Your task to perform on an android device: Where can I buy a nice beach umbrella? Image 0: 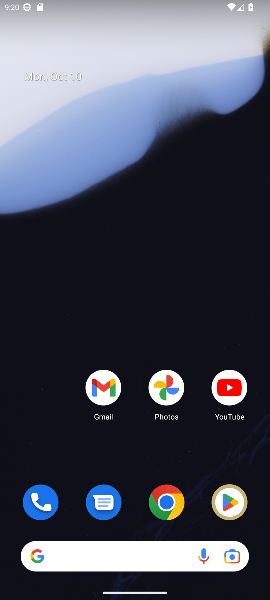
Step 0: click (167, 507)
Your task to perform on an android device: Where can I buy a nice beach umbrella? Image 1: 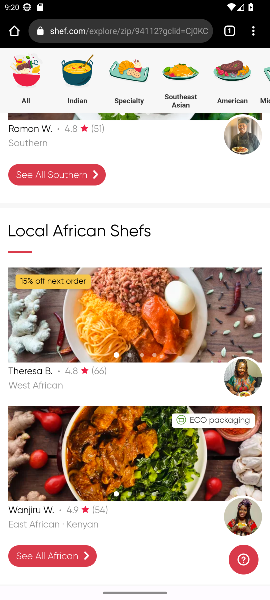
Step 1: click (131, 35)
Your task to perform on an android device: Where can I buy a nice beach umbrella? Image 2: 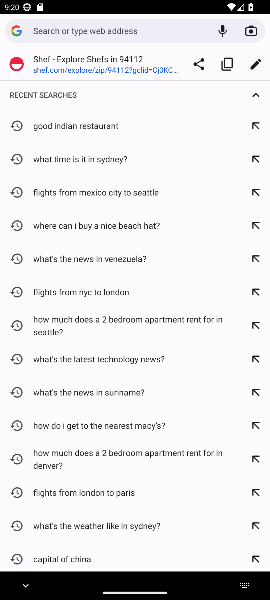
Step 2: type "Where can I buy a nice beach umbrella?"
Your task to perform on an android device: Where can I buy a nice beach umbrella? Image 3: 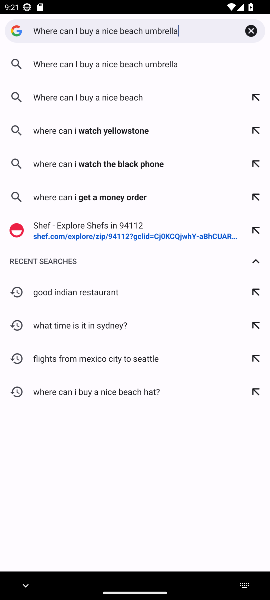
Step 3: type ""
Your task to perform on an android device: Where can I buy a nice beach umbrella? Image 4: 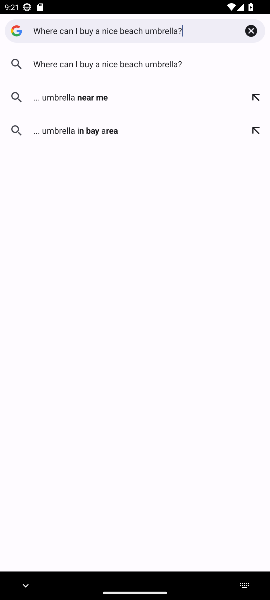
Step 4: press enter
Your task to perform on an android device: Where can I buy a nice beach umbrella? Image 5: 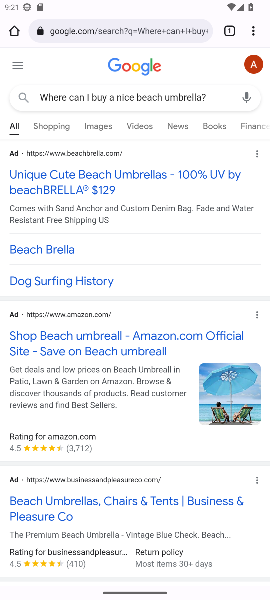
Step 5: click (104, 175)
Your task to perform on an android device: Where can I buy a nice beach umbrella? Image 6: 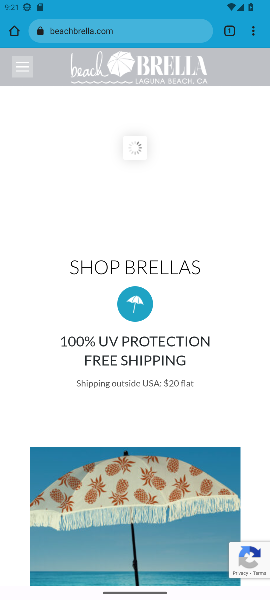
Step 6: drag from (148, 439) to (116, 172)
Your task to perform on an android device: Where can I buy a nice beach umbrella? Image 7: 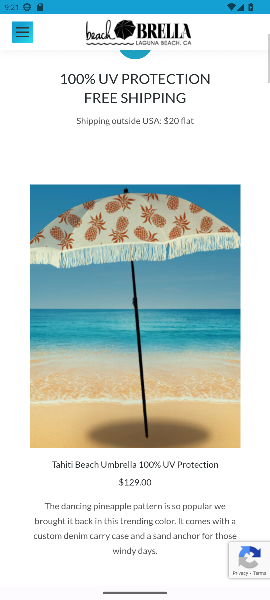
Step 7: drag from (156, 442) to (171, 226)
Your task to perform on an android device: Where can I buy a nice beach umbrella? Image 8: 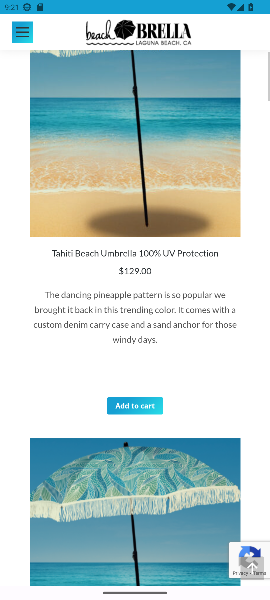
Step 8: drag from (174, 465) to (192, 209)
Your task to perform on an android device: Where can I buy a nice beach umbrella? Image 9: 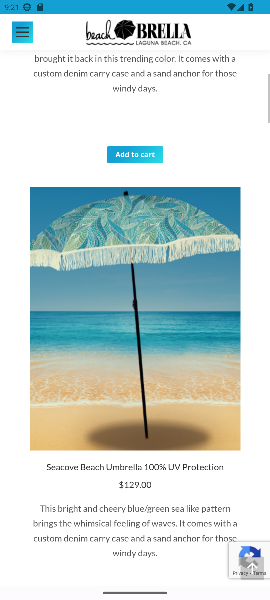
Step 9: drag from (185, 466) to (199, 214)
Your task to perform on an android device: Where can I buy a nice beach umbrella? Image 10: 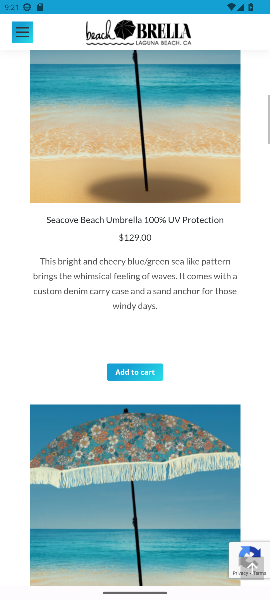
Step 10: drag from (194, 479) to (209, 252)
Your task to perform on an android device: Where can I buy a nice beach umbrella? Image 11: 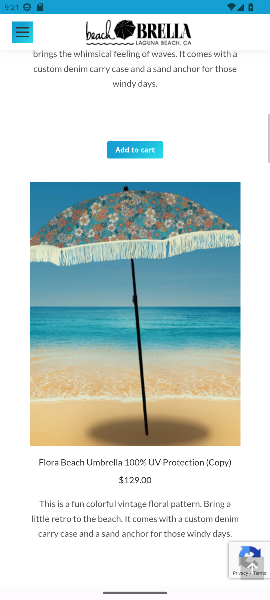
Step 11: drag from (193, 483) to (190, 165)
Your task to perform on an android device: Where can I buy a nice beach umbrella? Image 12: 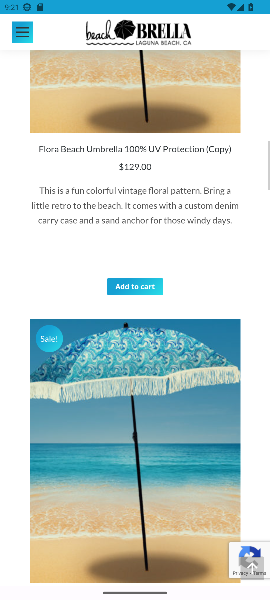
Step 12: drag from (210, 496) to (215, 143)
Your task to perform on an android device: Where can I buy a nice beach umbrella? Image 13: 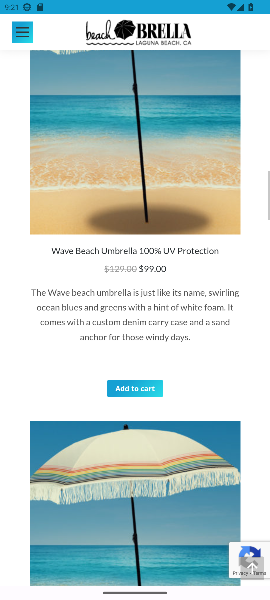
Step 13: drag from (175, 495) to (160, 138)
Your task to perform on an android device: Where can I buy a nice beach umbrella? Image 14: 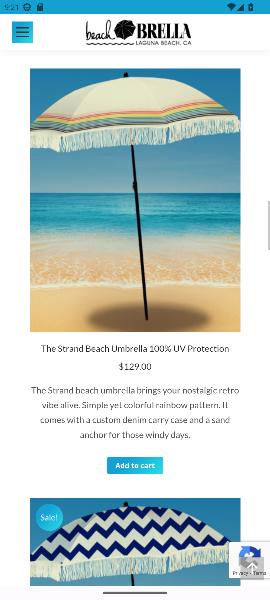
Step 14: drag from (151, 478) to (160, 173)
Your task to perform on an android device: Where can I buy a nice beach umbrella? Image 15: 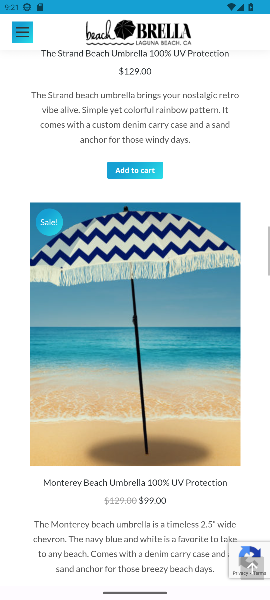
Step 15: drag from (178, 485) to (180, 188)
Your task to perform on an android device: Where can I buy a nice beach umbrella? Image 16: 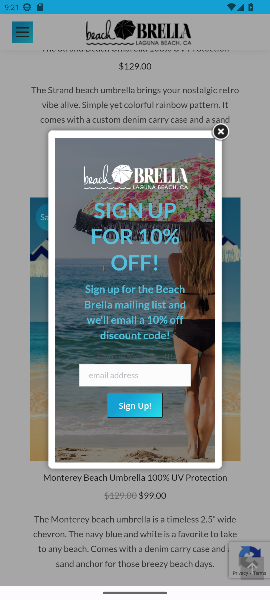
Step 16: drag from (174, 447) to (173, 207)
Your task to perform on an android device: Where can I buy a nice beach umbrella? Image 17: 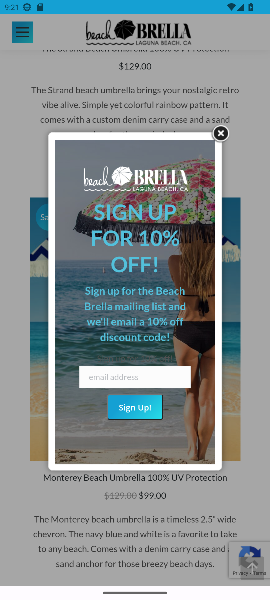
Step 17: click (218, 134)
Your task to perform on an android device: Where can I buy a nice beach umbrella? Image 18: 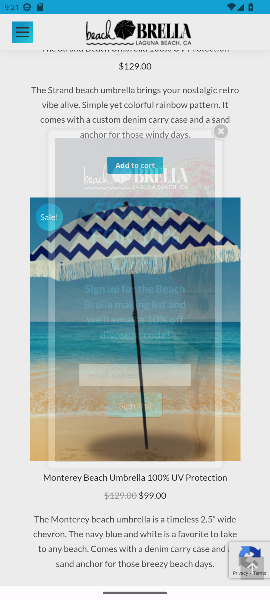
Step 18: drag from (166, 449) to (170, 136)
Your task to perform on an android device: Where can I buy a nice beach umbrella? Image 19: 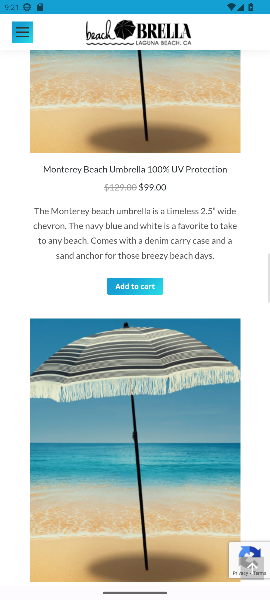
Step 19: drag from (169, 448) to (183, 157)
Your task to perform on an android device: Where can I buy a nice beach umbrella? Image 20: 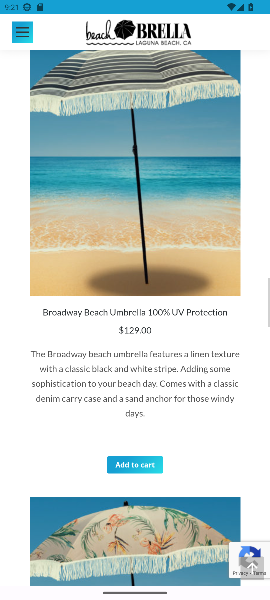
Step 20: drag from (176, 473) to (183, 170)
Your task to perform on an android device: Where can I buy a nice beach umbrella? Image 21: 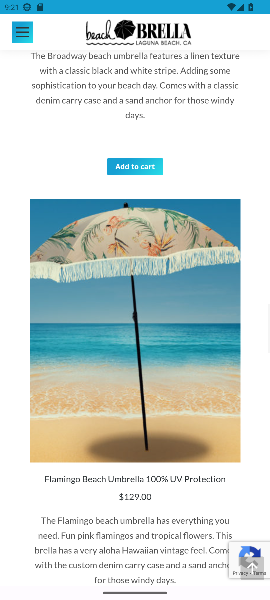
Step 21: drag from (194, 458) to (208, 144)
Your task to perform on an android device: Where can I buy a nice beach umbrella? Image 22: 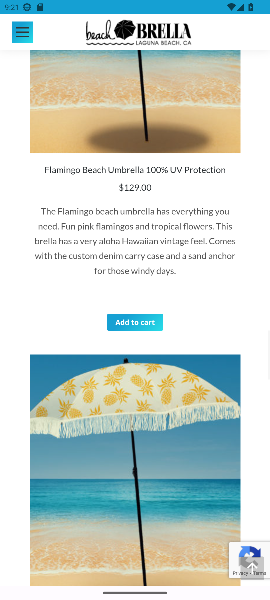
Step 22: drag from (193, 477) to (217, 151)
Your task to perform on an android device: Where can I buy a nice beach umbrella? Image 23: 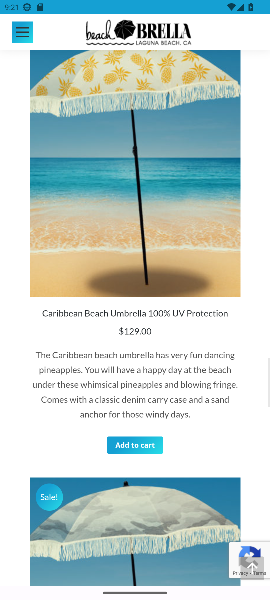
Step 23: drag from (200, 492) to (222, 169)
Your task to perform on an android device: Where can I buy a nice beach umbrella? Image 24: 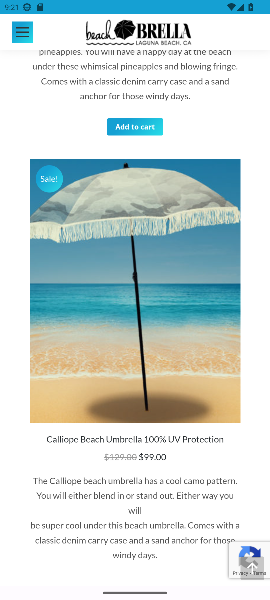
Step 24: drag from (197, 506) to (205, 176)
Your task to perform on an android device: Where can I buy a nice beach umbrella? Image 25: 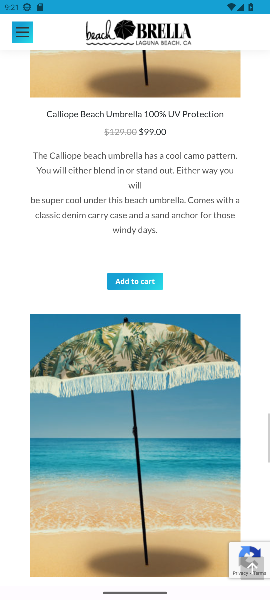
Step 25: drag from (198, 521) to (183, 202)
Your task to perform on an android device: Where can I buy a nice beach umbrella? Image 26: 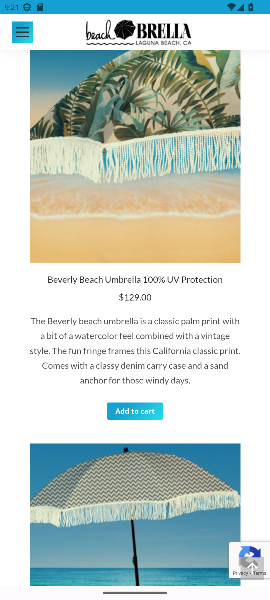
Step 26: drag from (151, 552) to (146, 153)
Your task to perform on an android device: Where can I buy a nice beach umbrella? Image 27: 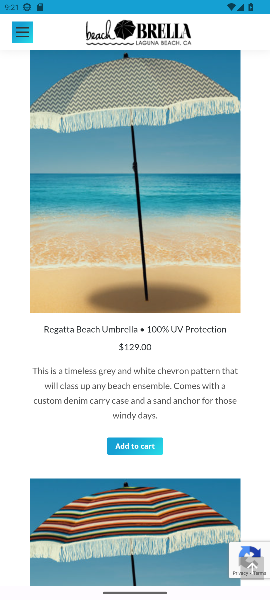
Step 27: drag from (144, 546) to (161, 189)
Your task to perform on an android device: Where can I buy a nice beach umbrella? Image 28: 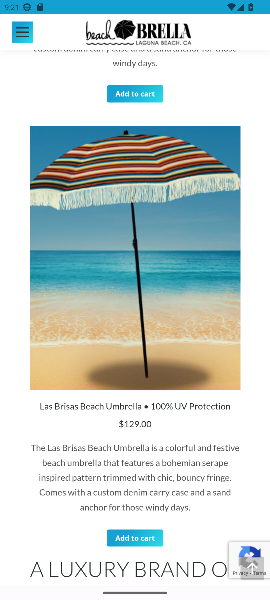
Step 28: drag from (174, 405) to (215, 187)
Your task to perform on an android device: Where can I buy a nice beach umbrella? Image 29: 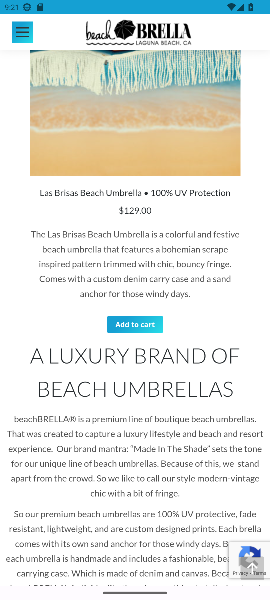
Step 29: drag from (192, 558) to (175, 191)
Your task to perform on an android device: Where can I buy a nice beach umbrella? Image 30: 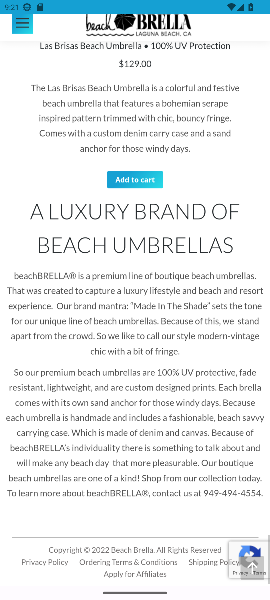
Step 30: drag from (133, 429) to (147, 189)
Your task to perform on an android device: Where can I buy a nice beach umbrella? Image 31: 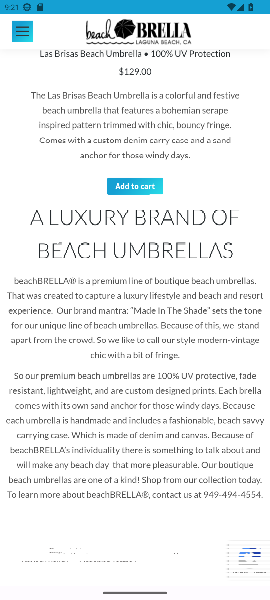
Step 31: drag from (117, 386) to (143, 220)
Your task to perform on an android device: Where can I buy a nice beach umbrella? Image 32: 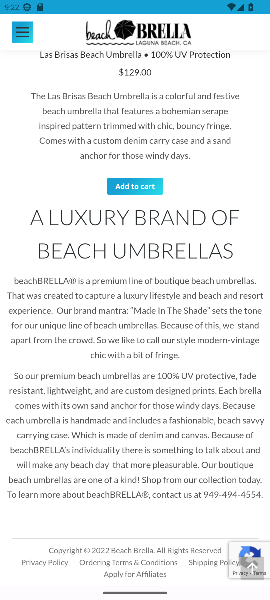
Step 32: drag from (140, 465) to (153, 288)
Your task to perform on an android device: Where can I buy a nice beach umbrella? Image 33: 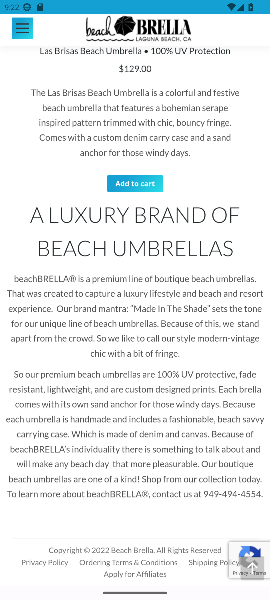
Step 33: press back button
Your task to perform on an android device: Where can I buy a nice beach umbrella? Image 34: 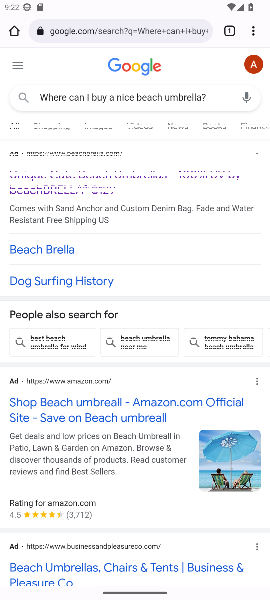
Step 34: click (119, 414)
Your task to perform on an android device: Where can I buy a nice beach umbrella? Image 35: 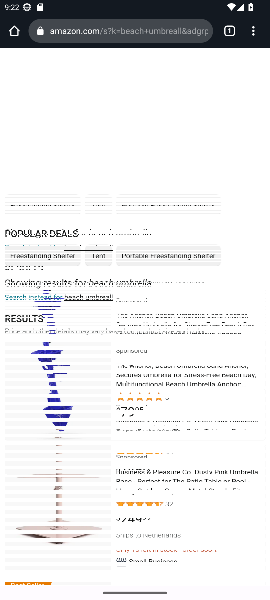
Step 35: drag from (118, 473) to (115, 192)
Your task to perform on an android device: Where can I buy a nice beach umbrella? Image 36: 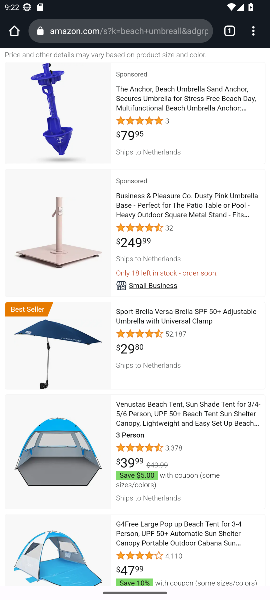
Step 36: drag from (118, 445) to (130, 140)
Your task to perform on an android device: Where can I buy a nice beach umbrella? Image 37: 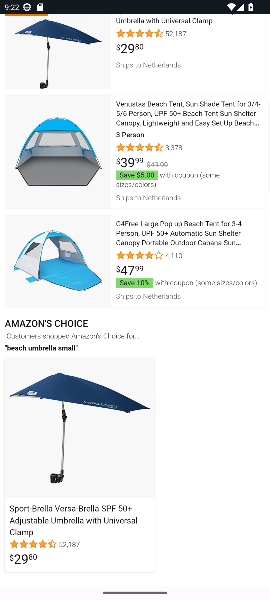
Step 37: drag from (127, 353) to (145, 166)
Your task to perform on an android device: Where can I buy a nice beach umbrella? Image 38: 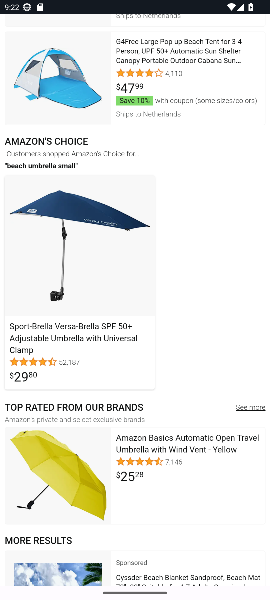
Step 38: drag from (132, 399) to (177, 199)
Your task to perform on an android device: Where can I buy a nice beach umbrella? Image 39: 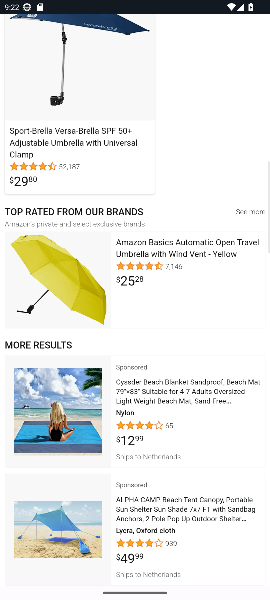
Step 39: drag from (130, 364) to (144, 229)
Your task to perform on an android device: Where can I buy a nice beach umbrella? Image 40: 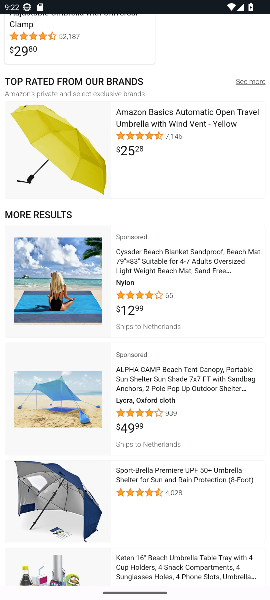
Step 40: drag from (93, 493) to (113, 154)
Your task to perform on an android device: Where can I buy a nice beach umbrella? Image 41: 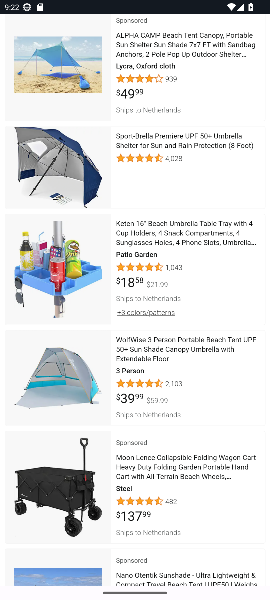
Step 41: drag from (101, 444) to (147, 148)
Your task to perform on an android device: Where can I buy a nice beach umbrella? Image 42: 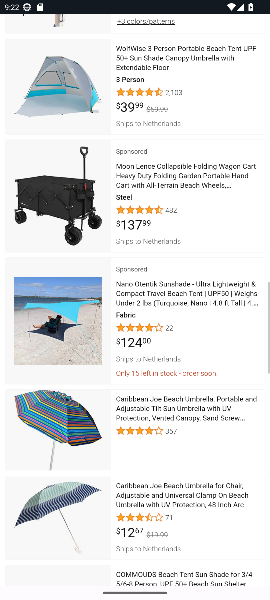
Step 42: drag from (130, 461) to (170, 136)
Your task to perform on an android device: Where can I buy a nice beach umbrella? Image 43: 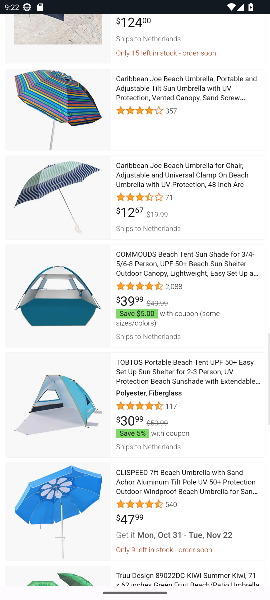
Step 43: drag from (153, 449) to (177, 193)
Your task to perform on an android device: Where can I buy a nice beach umbrella? Image 44: 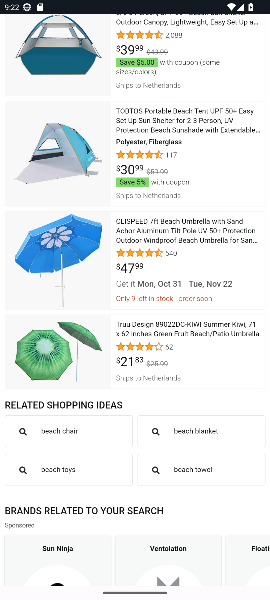
Step 44: drag from (178, 475) to (210, 148)
Your task to perform on an android device: Where can I buy a nice beach umbrella? Image 45: 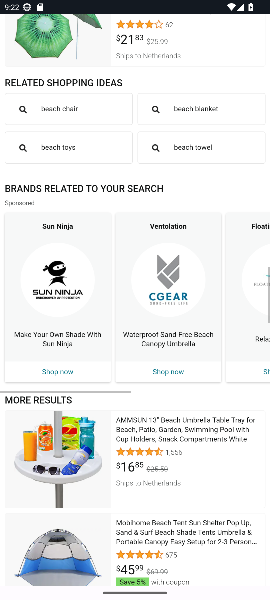
Step 45: drag from (160, 356) to (198, 116)
Your task to perform on an android device: Where can I buy a nice beach umbrella? Image 46: 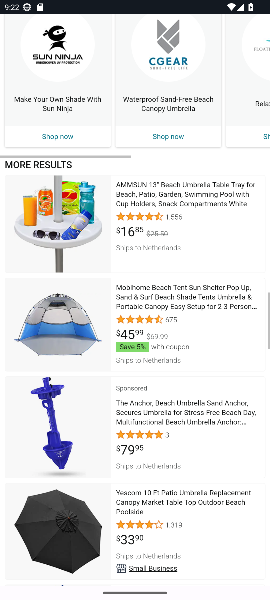
Step 46: drag from (179, 405) to (188, 103)
Your task to perform on an android device: Where can I buy a nice beach umbrella? Image 47: 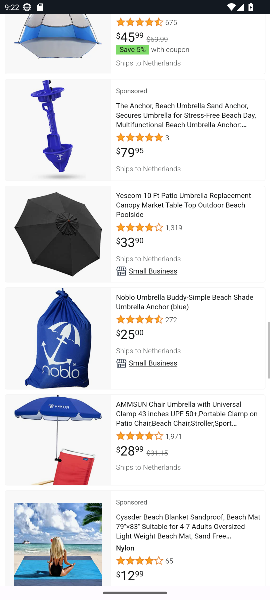
Step 47: drag from (167, 462) to (184, 58)
Your task to perform on an android device: Where can I buy a nice beach umbrella? Image 48: 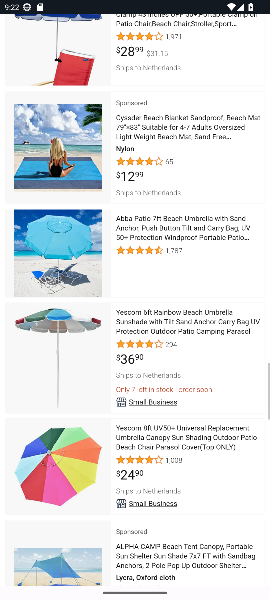
Step 48: drag from (174, 200) to (180, 122)
Your task to perform on an android device: Where can I buy a nice beach umbrella? Image 49: 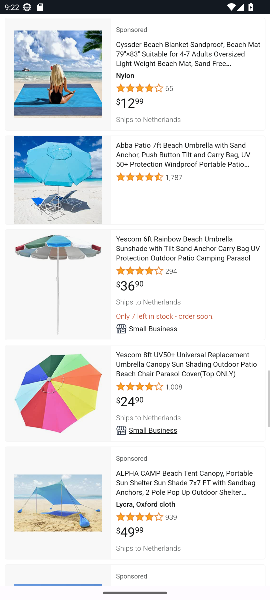
Step 49: drag from (184, 464) to (179, 129)
Your task to perform on an android device: Where can I buy a nice beach umbrella? Image 50: 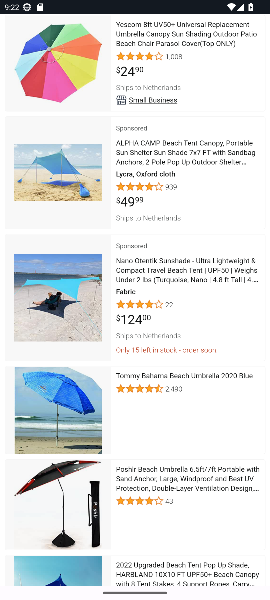
Step 50: press back button
Your task to perform on an android device: Where can I buy a nice beach umbrella? Image 51: 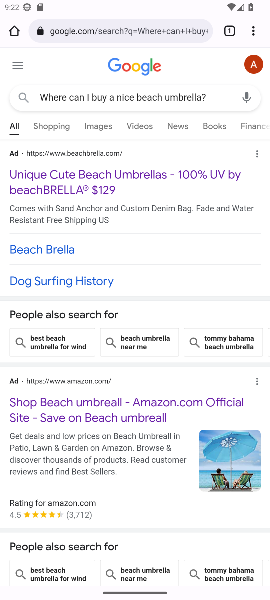
Step 51: drag from (134, 502) to (132, 182)
Your task to perform on an android device: Where can I buy a nice beach umbrella? Image 52: 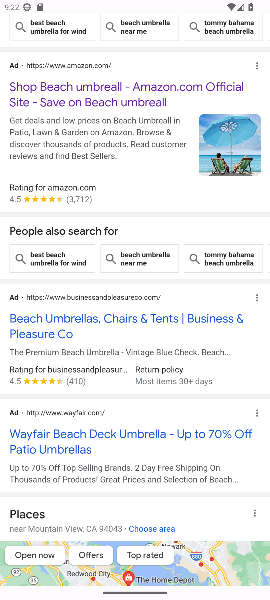
Step 52: click (134, 317)
Your task to perform on an android device: Where can I buy a nice beach umbrella? Image 53: 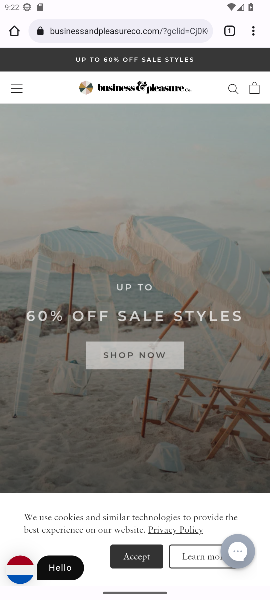
Step 53: drag from (136, 410) to (176, 101)
Your task to perform on an android device: Where can I buy a nice beach umbrella? Image 54: 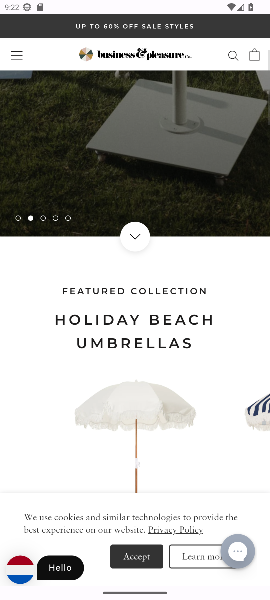
Step 54: drag from (178, 406) to (173, 171)
Your task to perform on an android device: Where can I buy a nice beach umbrella? Image 55: 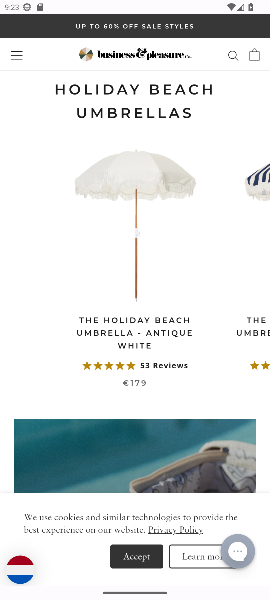
Step 55: drag from (190, 409) to (255, 76)
Your task to perform on an android device: Where can I buy a nice beach umbrella? Image 56: 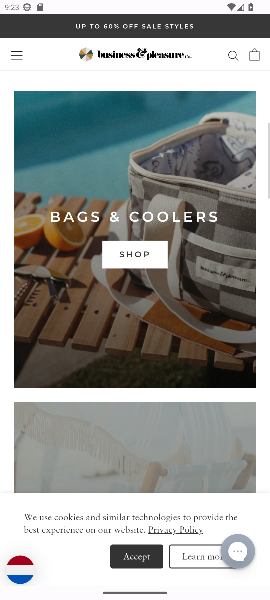
Step 56: drag from (235, 348) to (227, 177)
Your task to perform on an android device: Where can I buy a nice beach umbrella? Image 57: 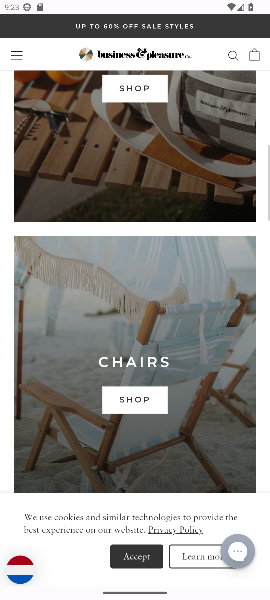
Step 57: drag from (191, 339) to (178, 170)
Your task to perform on an android device: Where can I buy a nice beach umbrella? Image 58: 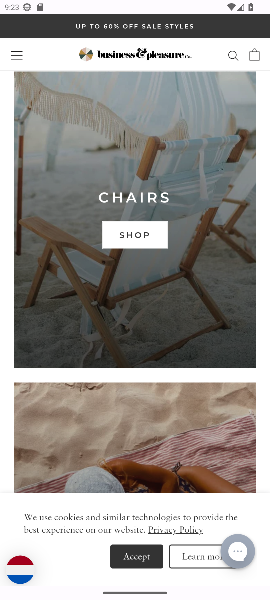
Step 58: drag from (174, 383) to (227, 120)
Your task to perform on an android device: Where can I buy a nice beach umbrella? Image 59: 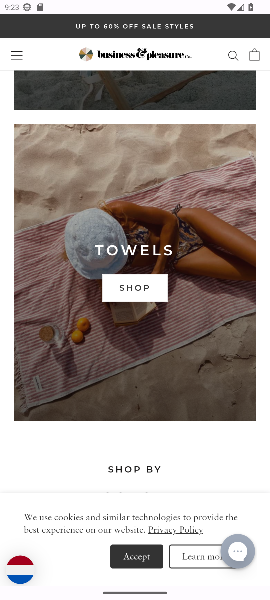
Step 59: drag from (163, 427) to (163, 133)
Your task to perform on an android device: Where can I buy a nice beach umbrella? Image 60: 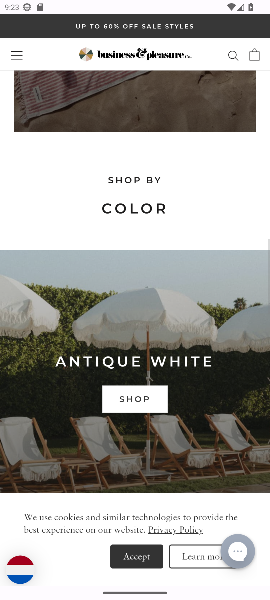
Step 60: drag from (217, 399) to (177, 142)
Your task to perform on an android device: Where can I buy a nice beach umbrella? Image 61: 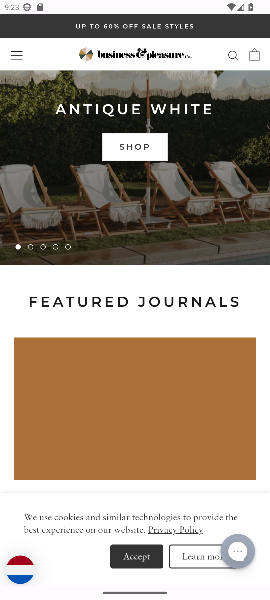
Step 61: drag from (199, 361) to (208, 201)
Your task to perform on an android device: Where can I buy a nice beach umbrella? Image 62: 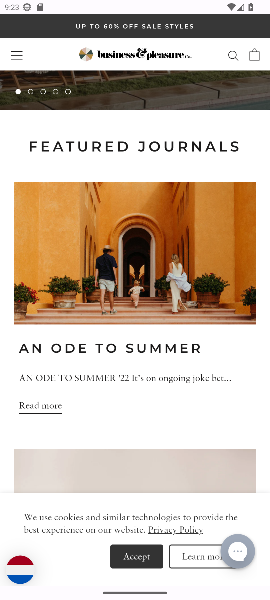
Step 62: drag from (222, 381) to (196, 158)
Your task to perform on an android device: Where can I buy a nice beach umbrella? Image 63: 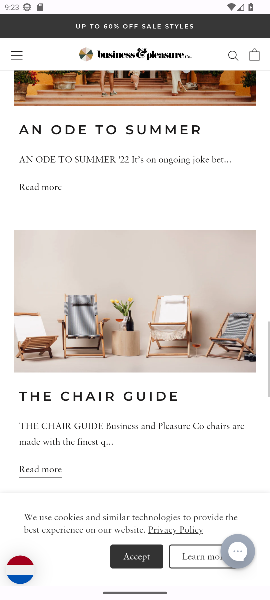
Step 63: drag from (190, 373) to (215, 238)
Your task to perform on an android device: Where can I buy a nice beach umbrella? Image 64: 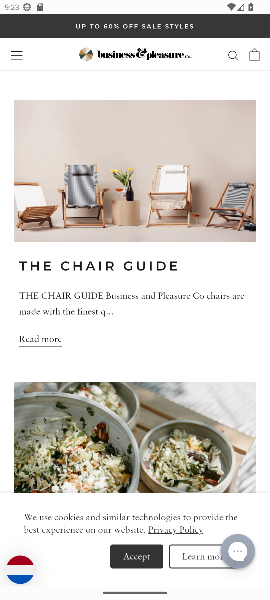
Step 64: drag from (242, 384) to (231, 179)
Your task to perform on an android device: Where can I buy a nice beach umbrella? Image 65: 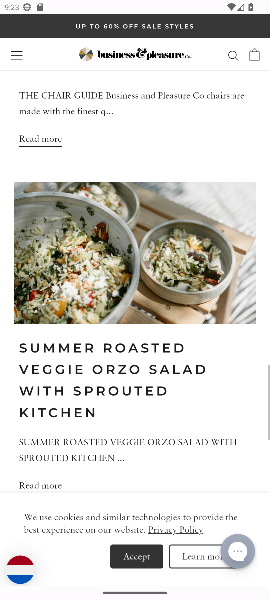
Step 65: drag from (211, 360) to (230, 160)
Your task to perform on an android device: Where can I buy a nice beach umbrella? Image 66: 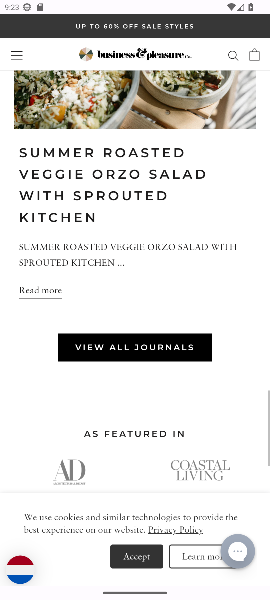
Step 66: drag from (236, 387) to (263, 179)
Your task to perform on an android device: Where can I buy a nice beach umbrella? Image 67: 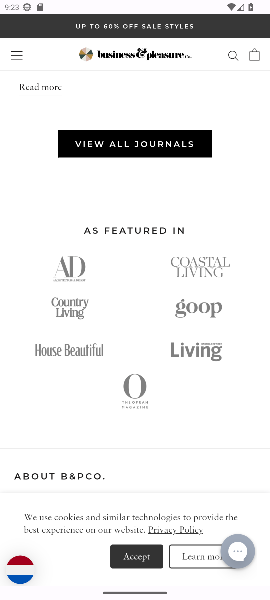
Step 67: drag from (212, 429) to (180, 175)
Your task to perform on an android device: Where can I buy a nice beach umbrella? Image 68: 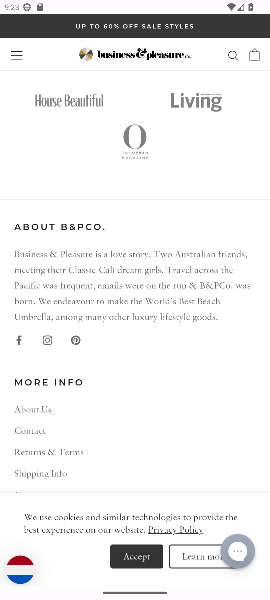
Step 68: press back button
Your task to perform on an android device: Where can I buy a nice beach umbrella? Image 69: 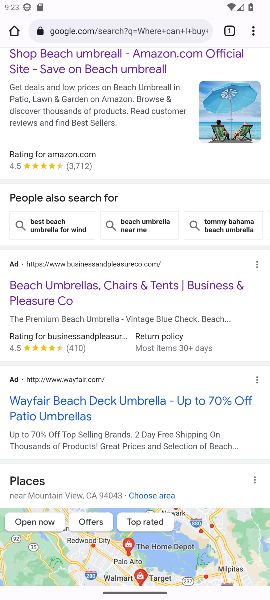
Step 69: drag from (182, 471) to (191, 155)
Your task to perform on an android device: Where can I buy a nice beach umbrella? Image 70: 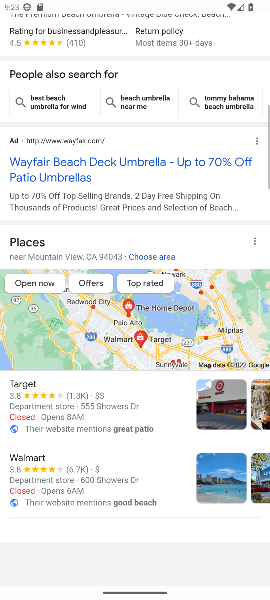
Step 70: drag from (157, 343) to (153, 127)
Your task to perform on an android device: Where can I buy a nice beach umbrella? Image 71: 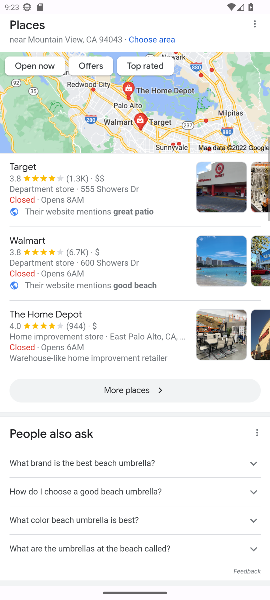
Step 71: drag from (139, 347) to (145, 128)
Your task to perform on an android device: Where can I buy a nice beach umbrella? Image 72: 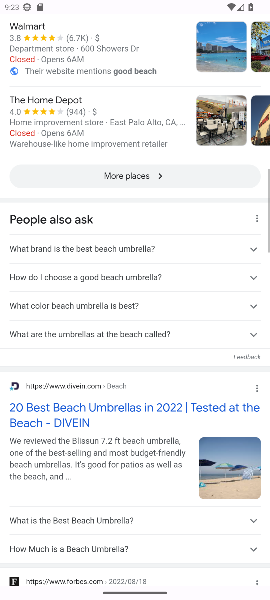
Step 72: drag from (142, 334) to (139, 133)
Your task to perform on an android device: Where can I buy a nice beach umbrella? Image 73: 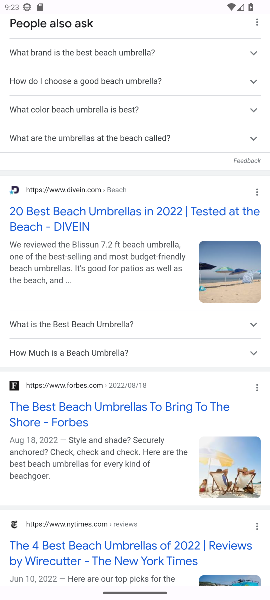
Step 73: click (120, 213)
Your task to perform on an android device: Where can I buy a nice beach umbrella? Image 74: 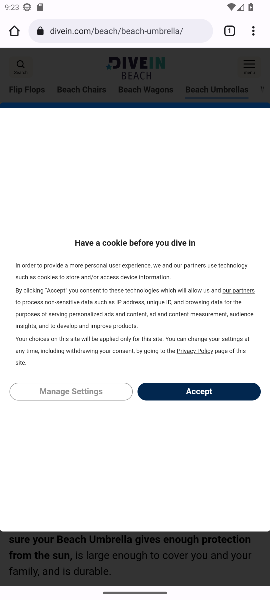
Step 74: drag from (129, 276) to (133, 149)
Your task to perform on an android device: Where can I buy a nice beach umbrella? Image 75: 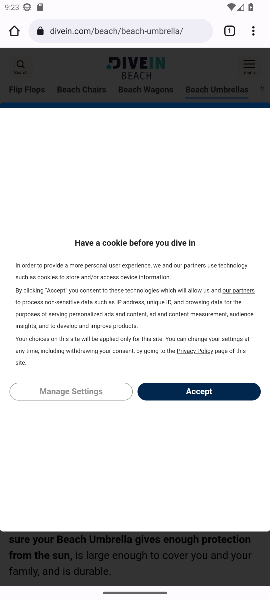
Step 75: drag from (170, 358) to (170, 167)
Your task to perform on an android device: Where can I buy a nice beach umbrella? Image 76: 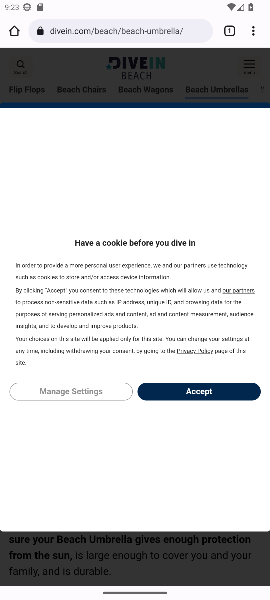
Step 76: drag from (192, 333) to (185, 179)
Your task to perform on an android device: Where can I buy a nice beach umbrella? Image 77: 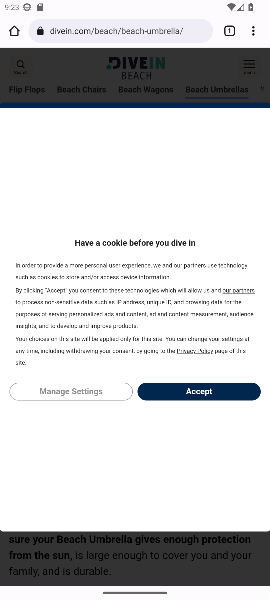
Step 77: drag from (211, 337) to (206, 199)
Your task to perform on an android device: Where can I buy a nice beach umbrella? Image 78: 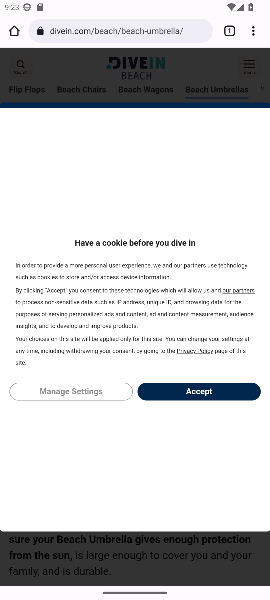
Step 78: drag from (189, 356) to (194, 178)
Your task to perform on an android device: Where can I buy a nice beach umbrella? Image 79: 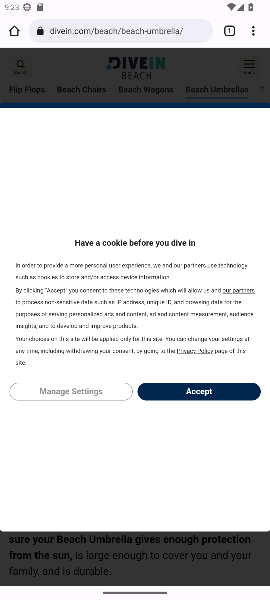
Step 79: drag from (182, 328) to (173, 182)
Your task to perform on an android device: Where can I buy a nice beach umbrella? Image 80: 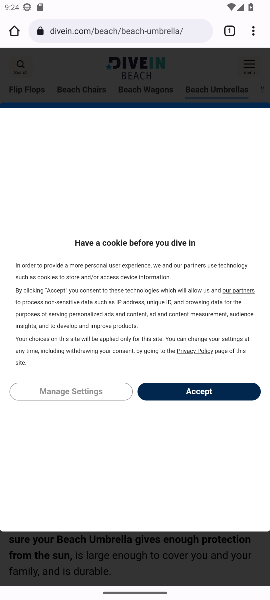
Step 80: press back button
Your task to perform on an android device: Where can I buy a nice beach umbrella? Image 81: 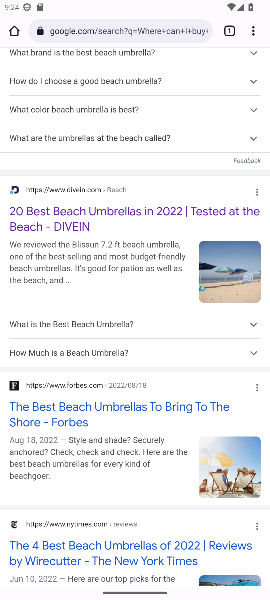
Step 81: drag from (199, 458) to (182, 135)
Your task to perform on an android device: Where can I buy a nice beach umbrella? Image 82: 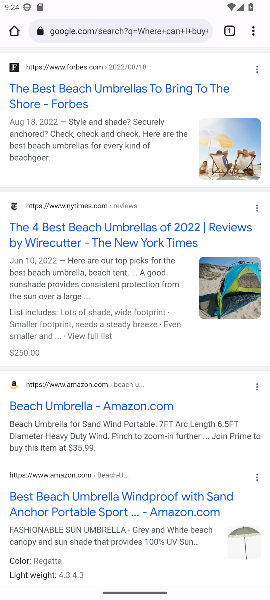
Step 82: drag from (163, 416) to (145, 58)
Your task to perform on an android device: Where can I buy a nice beach umbrella? Image 83: 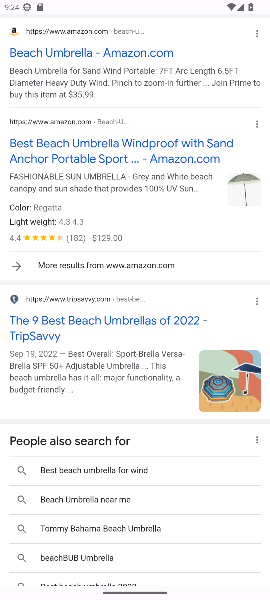
Step 83: click (135, 142)
Your task to perform on an android device: Where can I buy a nice beach umbrella? Image 84: 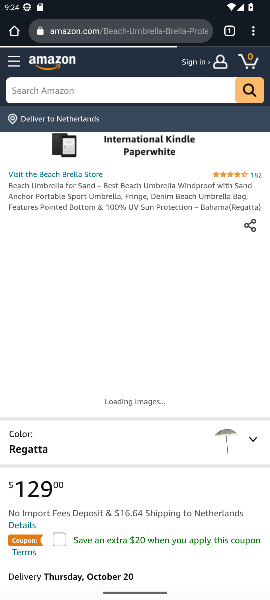
Step 84: task complete